Your task to perform on an android device: turn vacation reply on in the gmail app Image 0: 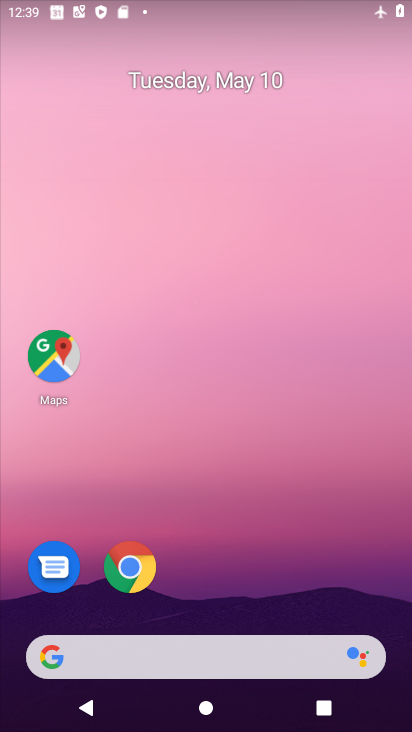
Step 0: drag from (370, 600) to (322, 23)
Your task to perform on an android device: turn vacation reply on in the gmail app Image 1: 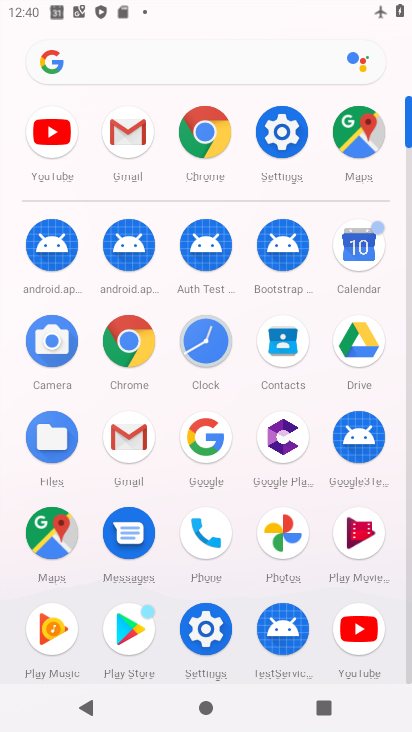
Step 1: click (137, 455)
Your task to perform on an android device: turn vacation reply on in the gmail app Image 2: 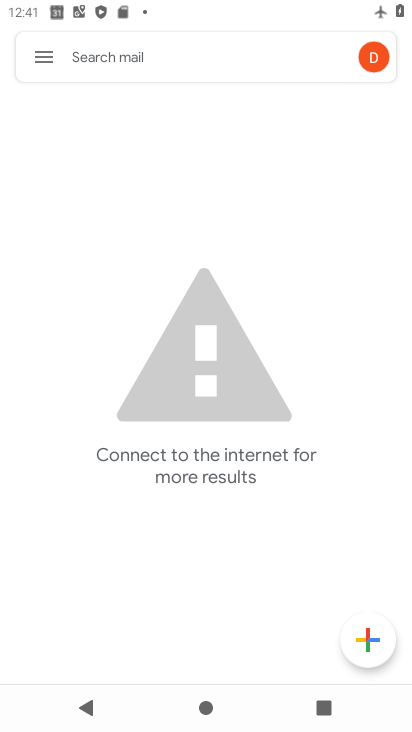
Step 2: click (43, 57)
Your task to perform on an android device: turn vacation reply on in the gmail app Image 3: 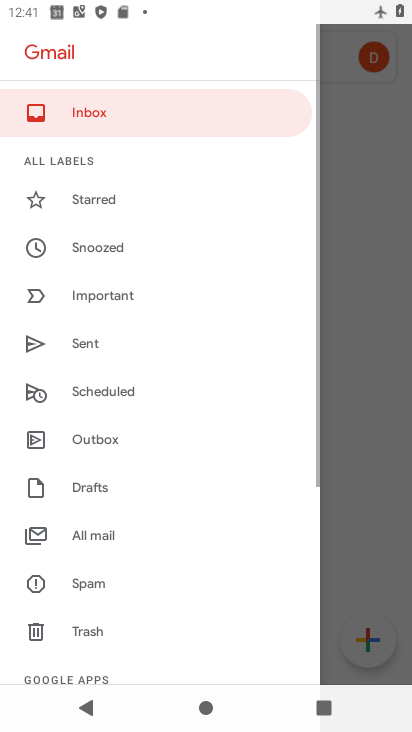
Step 3: drag from (178, 623) to (243, 183)
Your task to perform on an android device: turn vacation reply on in the gmail app Image 4: 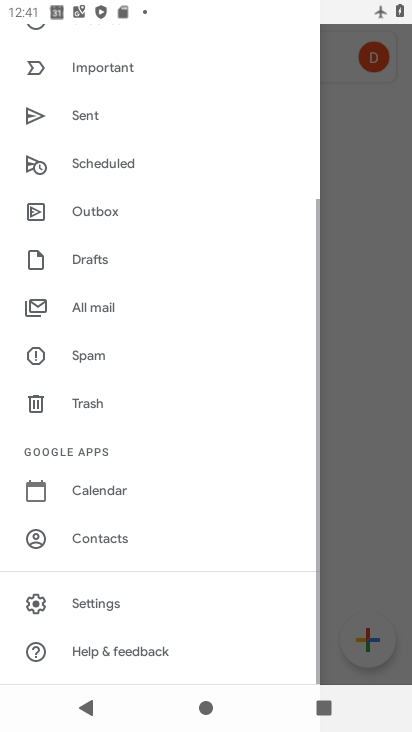
Step 4: click (180, 610)
Your task to perform on an android device: turn vacation reply on in the gmail app Image 5: 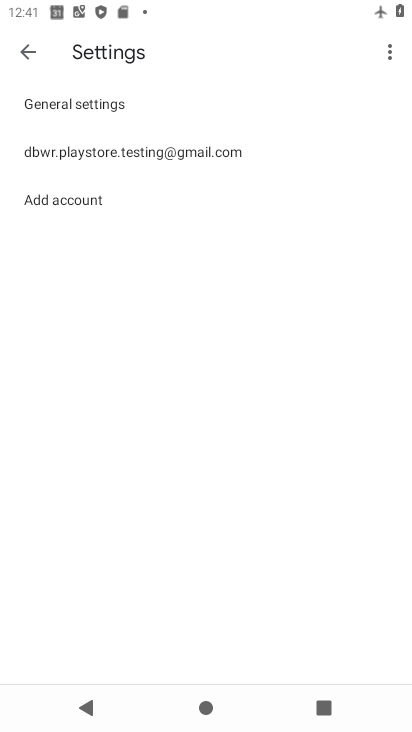
Step 5: drag from (180, 610) to (199, 212)
Your task to perform on an android device: turn vacation reply on in the gmail app Image 6: 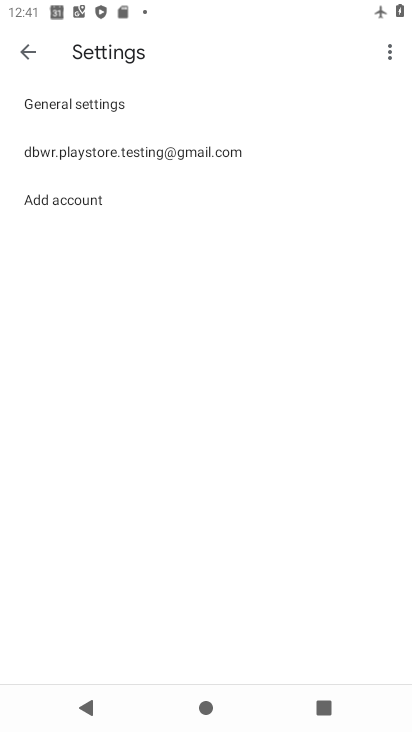
Step 6: click (191, 153)
Your task to perform on an android device: turn vacation reply on in the gmail app Image 7: 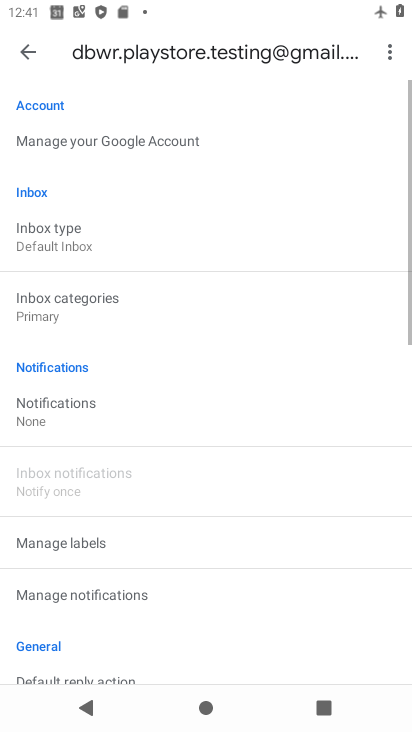
Step 7: drag from (183, 611) to (212, 162)
Your task to perform on an android device: turn vacation reply on in the gmail app Image 8: 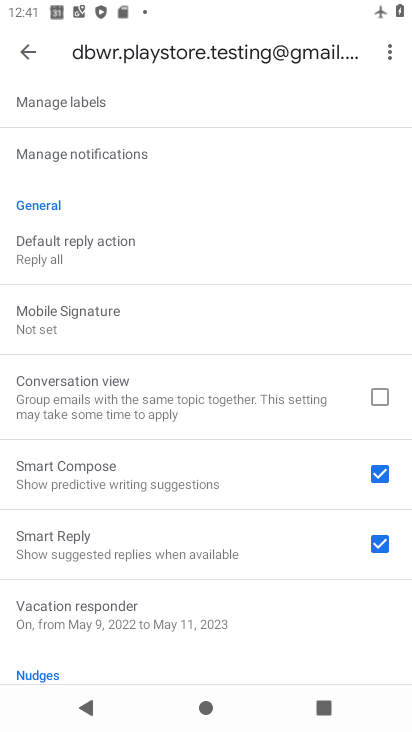
Step 8: click (193, 602)
Your task to perform on an android device: turn vacation reply on in the gmail app Image 9: 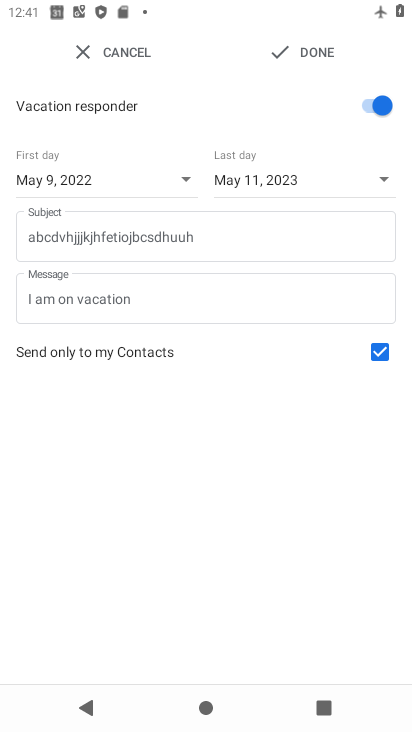
Step 9: task complete